Your task to perform on an android device: toggle notification dots Image 0: 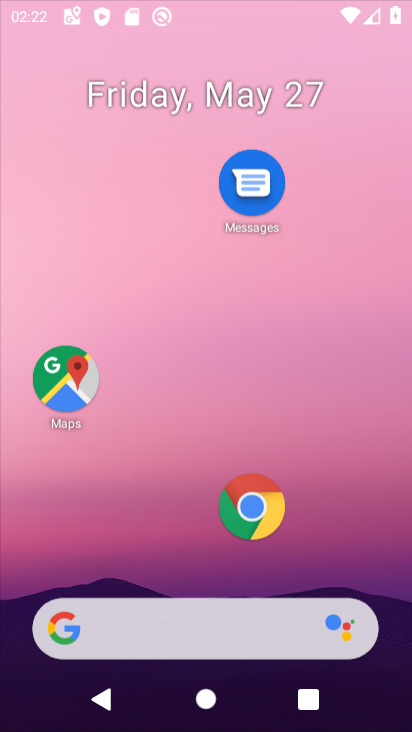
Step 0: click (275, 18)
Your task to perform on an android device: toggle notification dots Image 1: 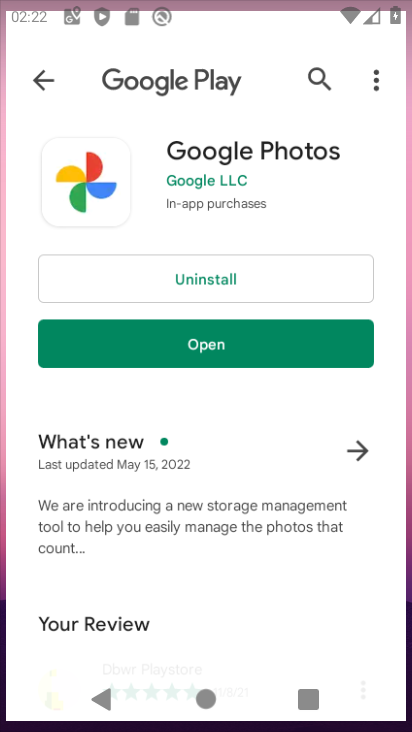
Step 1: drag from (207, 573) to (219, 139)
Your task to perform on an android device: toggle notification dots Image 2: 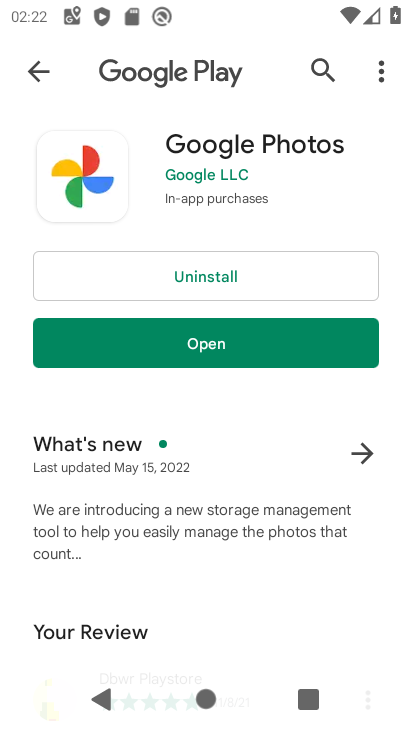
Step 2: press back button
Your task to perform on an android device: toggle notification dots Image 3: 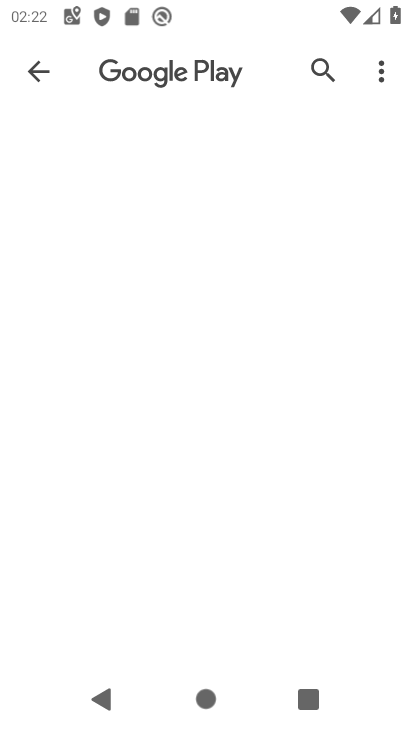
Step 3: press home button
Your task to perform on an android device: toggle notification dots Image 4: 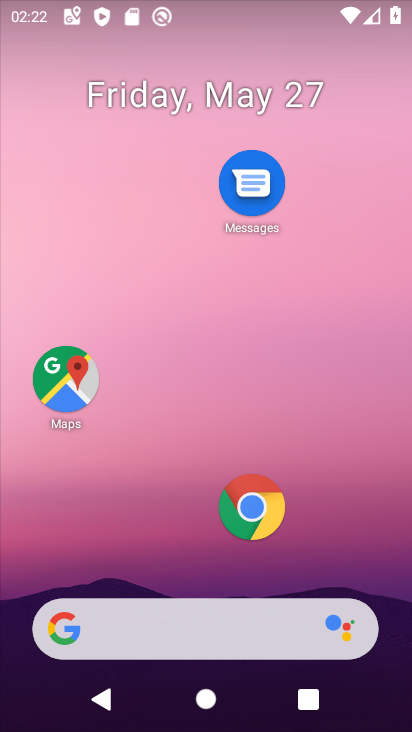
Step 4: drag from (211, 595) to (200, 87)
Your task to perform on an android device: toggle notification dots Image 5: 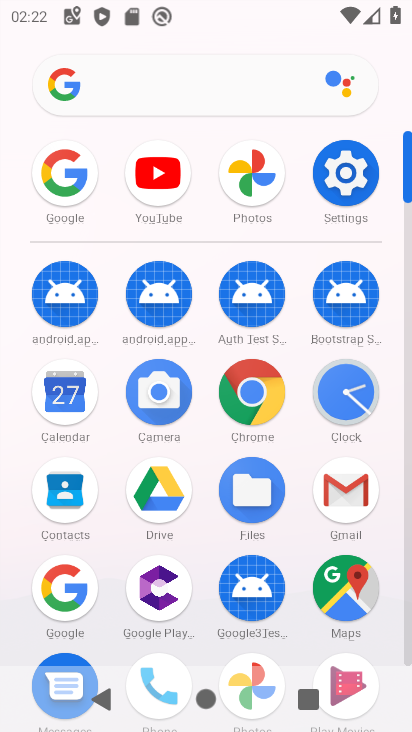
Step 5: click (347, 167)
Your task to perform on an android device: toggle notification dots Image 6: 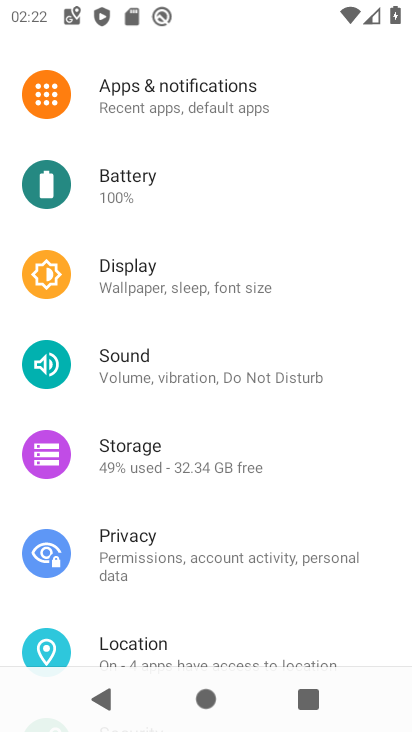
Step 6: click (206, 102)
Your task to perform on an android device: toggle notification dots Image 7: 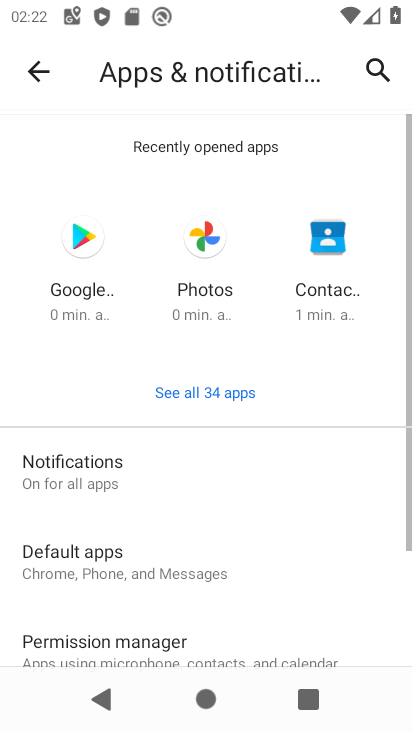
Step 7: click (144, 486)
Your task to perform on an android device: toggle notification dots Image 8: 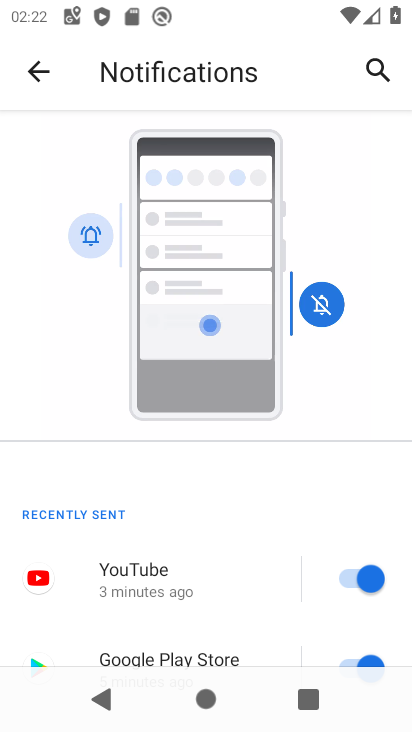
Step 8: drag from (249, 577) to (308, 137)
Your task to perform on an android device: toggle notification dots Image 9: 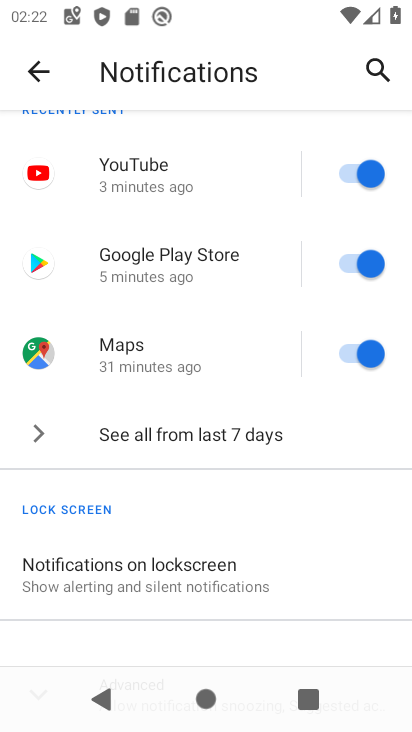
Step 9: drag from (208, 597) to (296, 166)
Your task to perform on an android device: toggle notification dots Image 10: 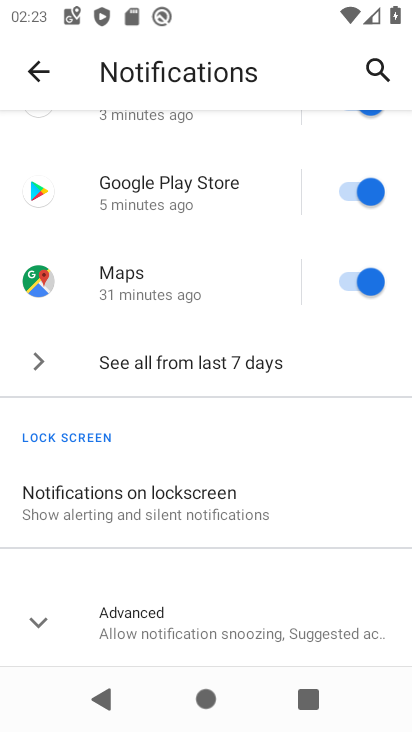
Step 10: click (148, 627)
Your task to perform on an android device: toggle notification dots Image 11: 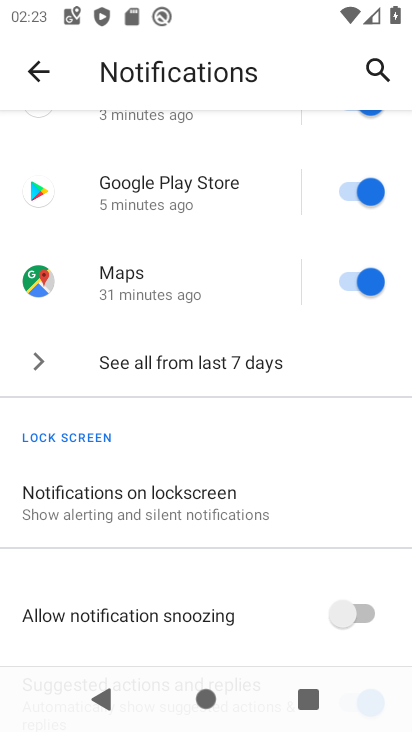
Step 11: drag from (190, 599) to (284, 201)
Your task to perform on an android device: toggle notification dots Image 12: 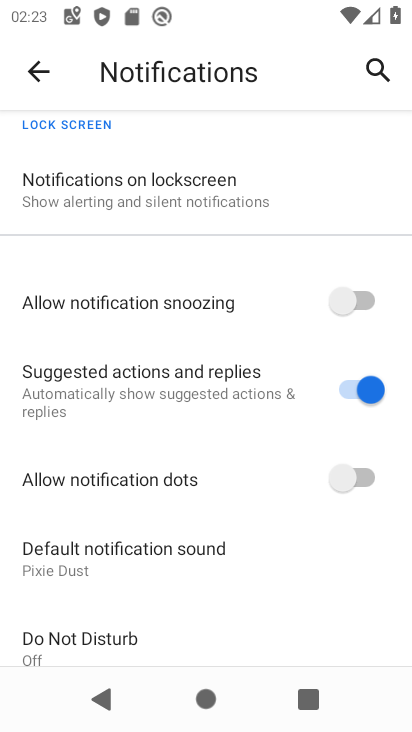
Step 12: drag from (267, 604) to (302, 243)
Your task to perform on an android device: toggle notification dots Image 13: 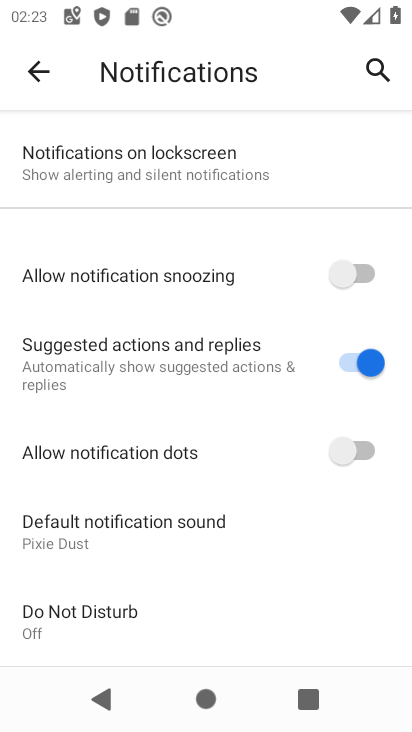
Step 13: click (352, 440)
Your task to perform on an android device: toggle notification dots Image 14: 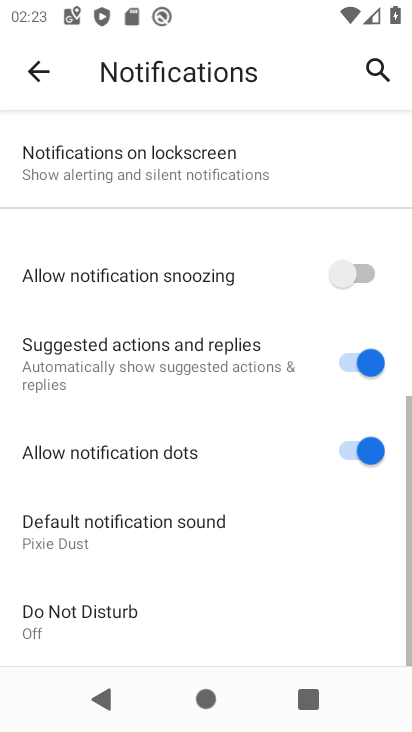
Step 14: task complete